Your task to perform on an android device: stop showing notifications on the lock screen Image 0: 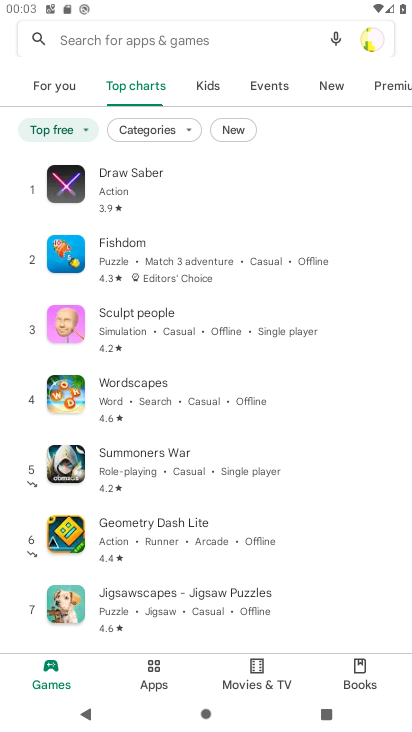
Step 0: press home button
Your task to perform on an android device: stop showing notifications on the lock screen Image 1: 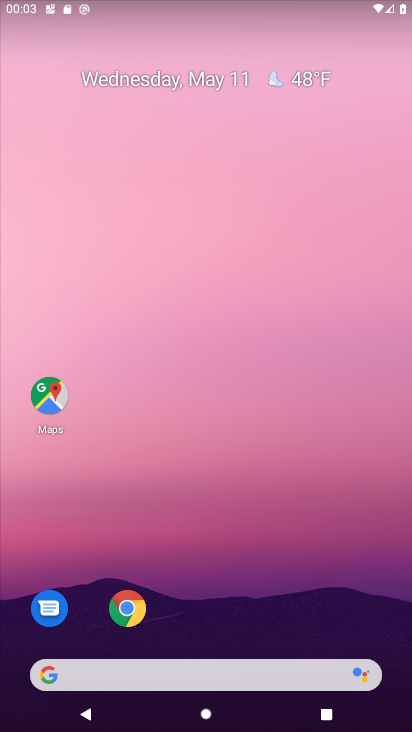
Step 1: drag from (212, 602) to (186, 242)
Your task to perform on an android device: stop showing notifications on the lock screen Image 2: 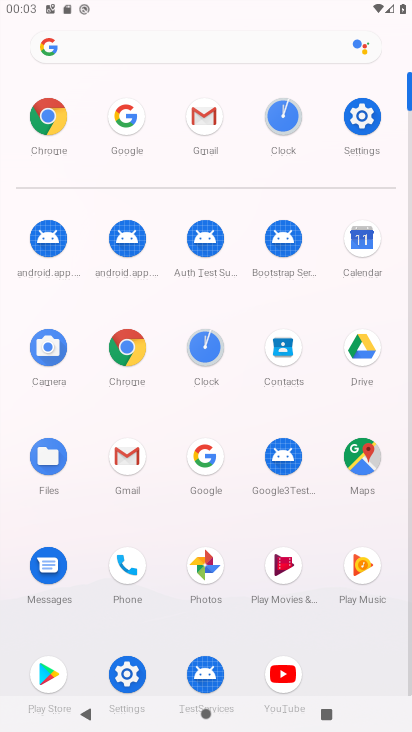
Step 2: click (360, 124)
Your task to perform on an android device: stop showing notifications on the lock screen Image 3: 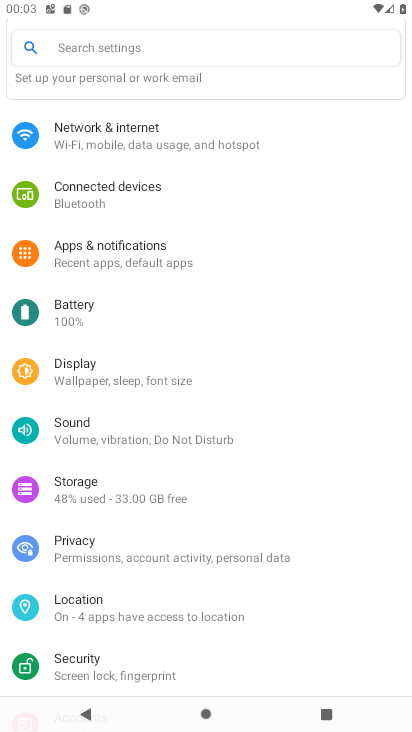
Step 3: click (190, 259)
Your task to perform on an android device: stop showing notifications on the lock screen Image 4: 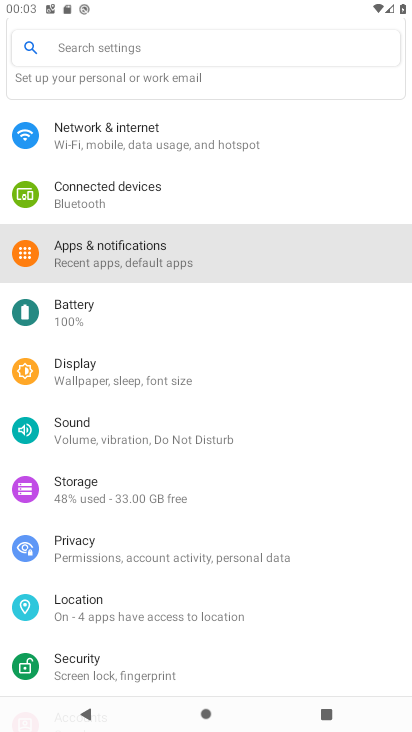
Step 4: click (190, 259)
Your task to perform on an android device: stop showing notifications on the lock screen Image 5: 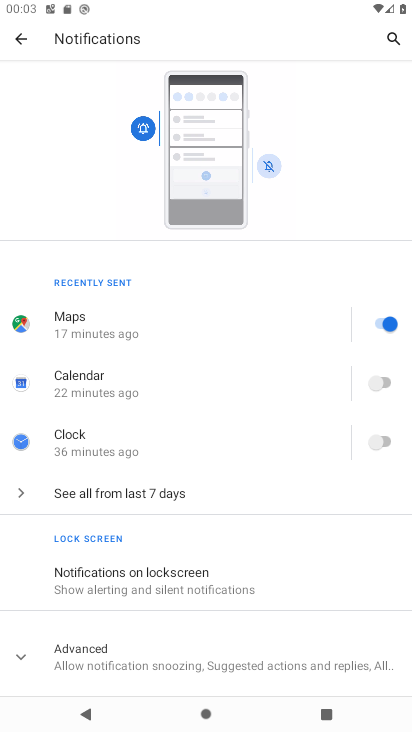
Step 5: click (138, 578)
Your task to perform on an android device: stop showing notifications on the lock screen Image 6: 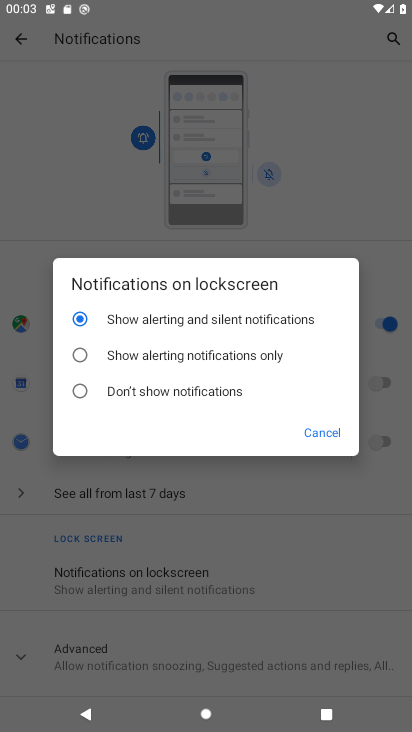
Step 6: click (191, 389)
Your task to perform on an android device: stop showing notifications on the lock screen Image 7: 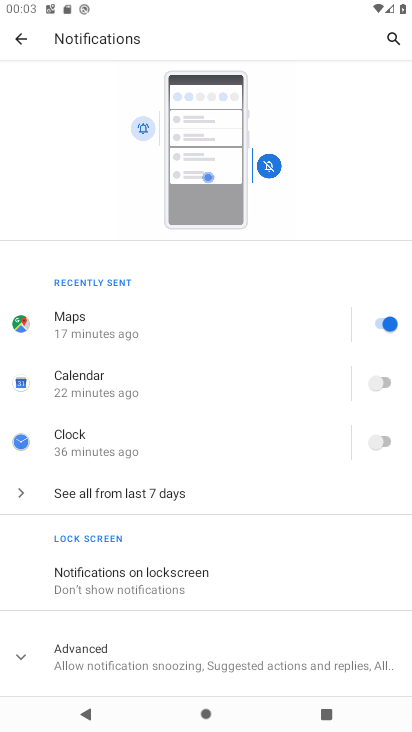
Step 7: task complete